Your task to perform on an android device: Show me recent news Image 0: 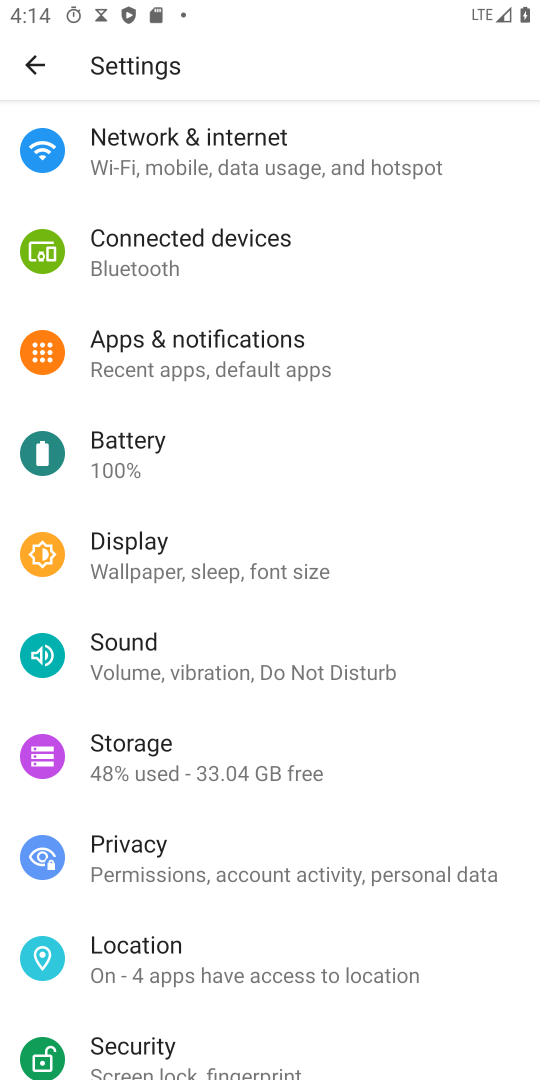
Step 0: press home button
Your task to perform on an android device: Show me recent news Image 1: 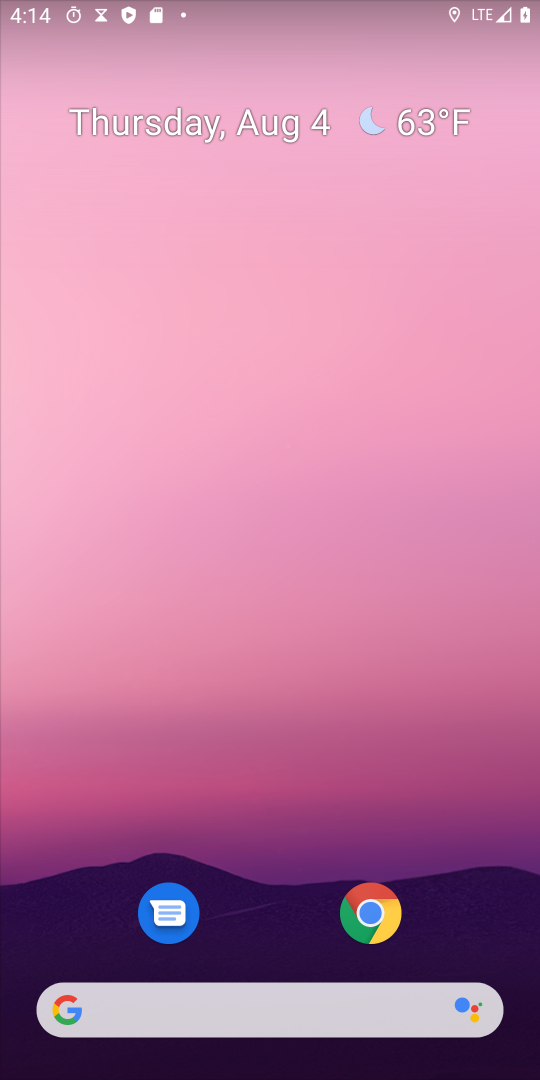
Step 1: drag from (358, 1003) to (515, 226)
Your task to perform on an android device: Show me recent news Image 2: 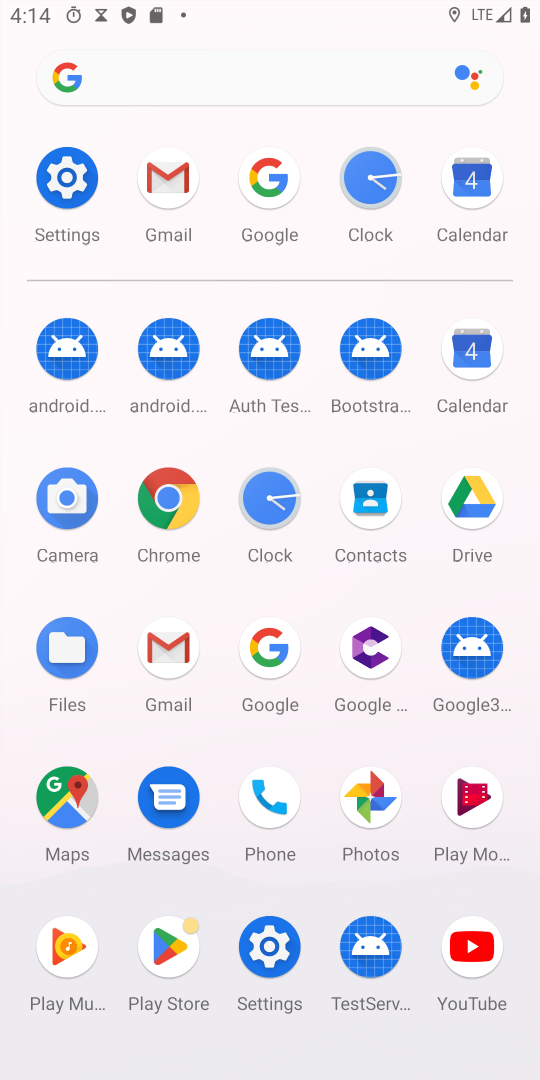
Step 2: click (166, 499)
Your task to perform on an android device: Show me recent news Image 3: 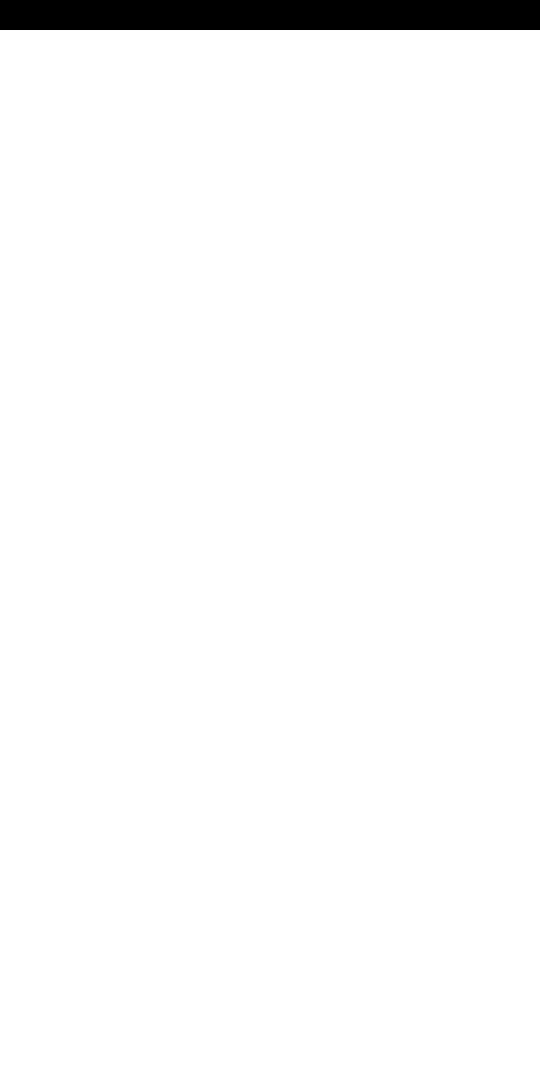
Step 3: click (172, 512)
Your task to perform on an android device: Show me recent news Image 4: 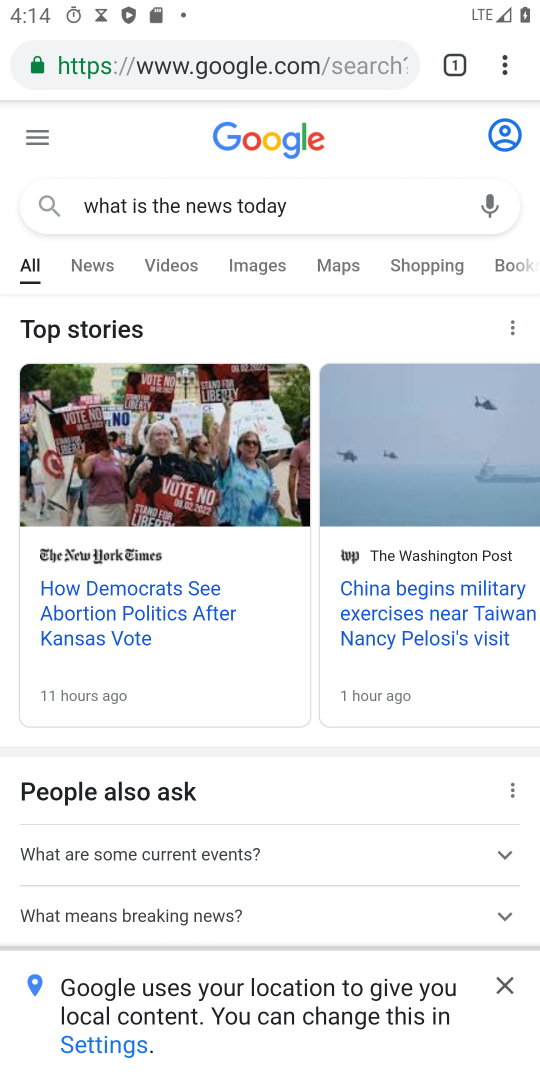
Step 4: click (220, 84)
Your task to perform on an android device: Show me recent news Image 5: 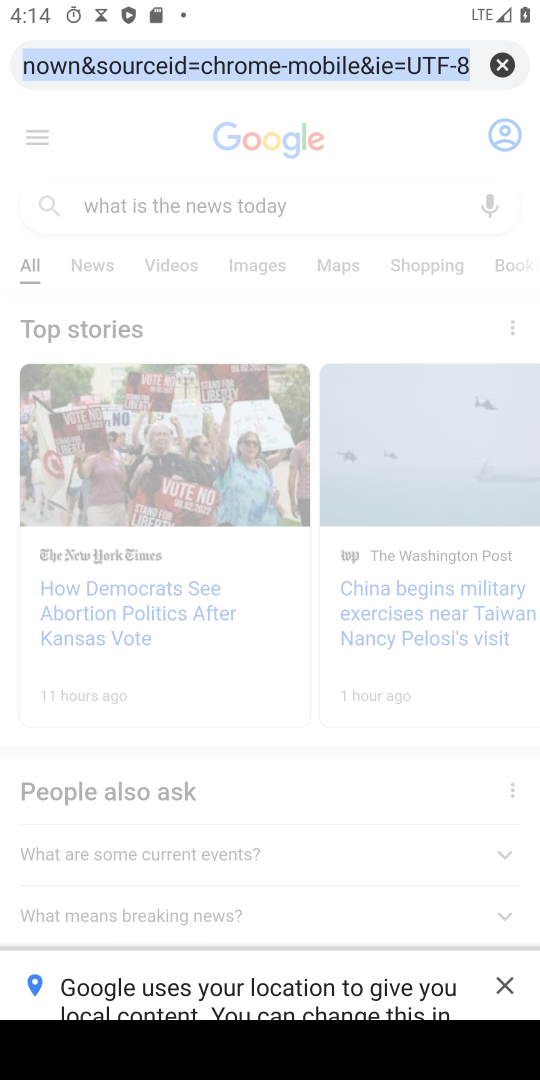
Step 5: click (498, 50)
Your task to perform on an android device: Show me recent news Image 6: 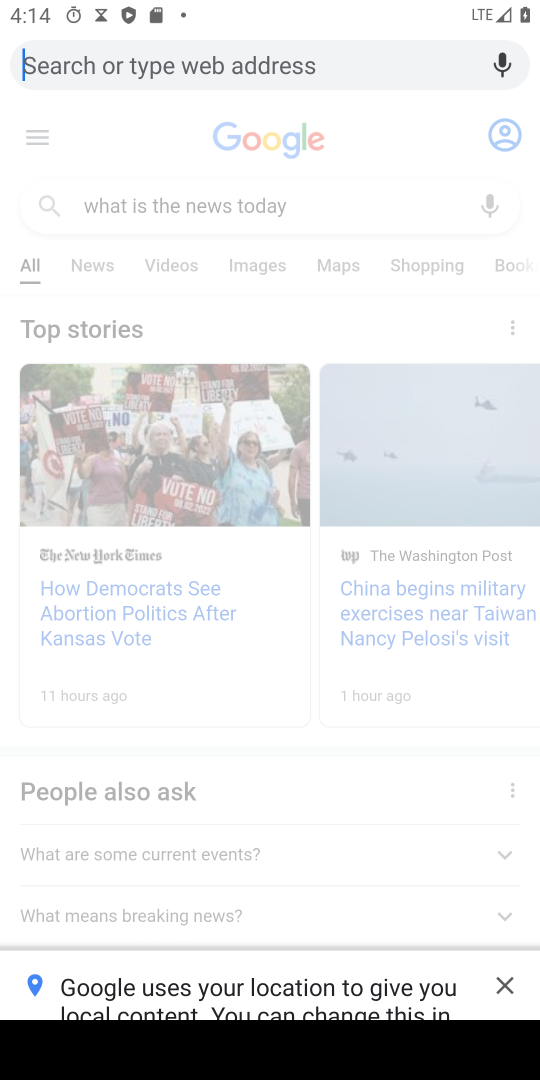
Step 6: type "show me recent news"
Your task to perform on an android device: Show me recent news Image 7: 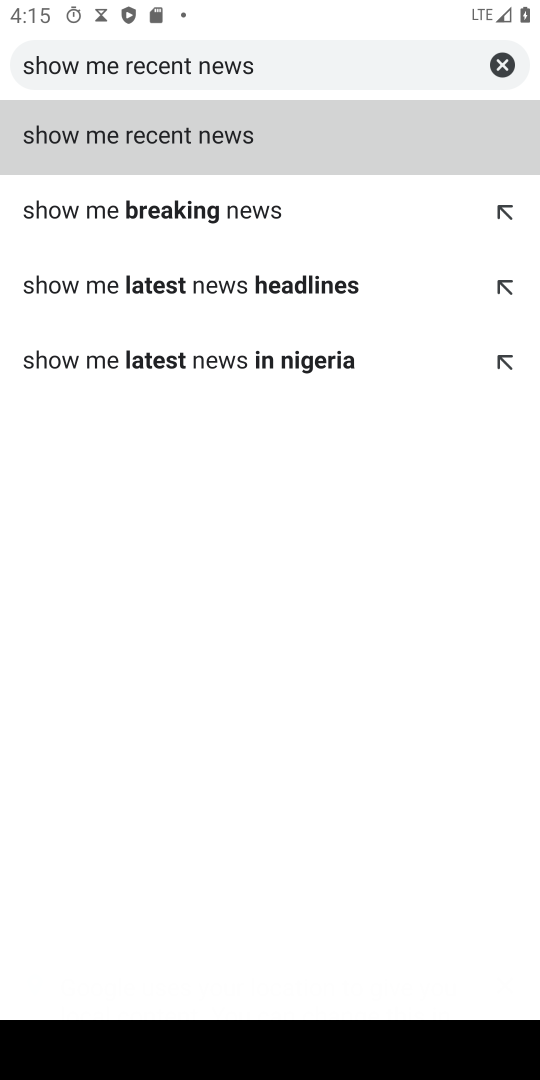
Step 7: click (318, 151)
Your task to perform on an android device: Show me recent news Image 8: 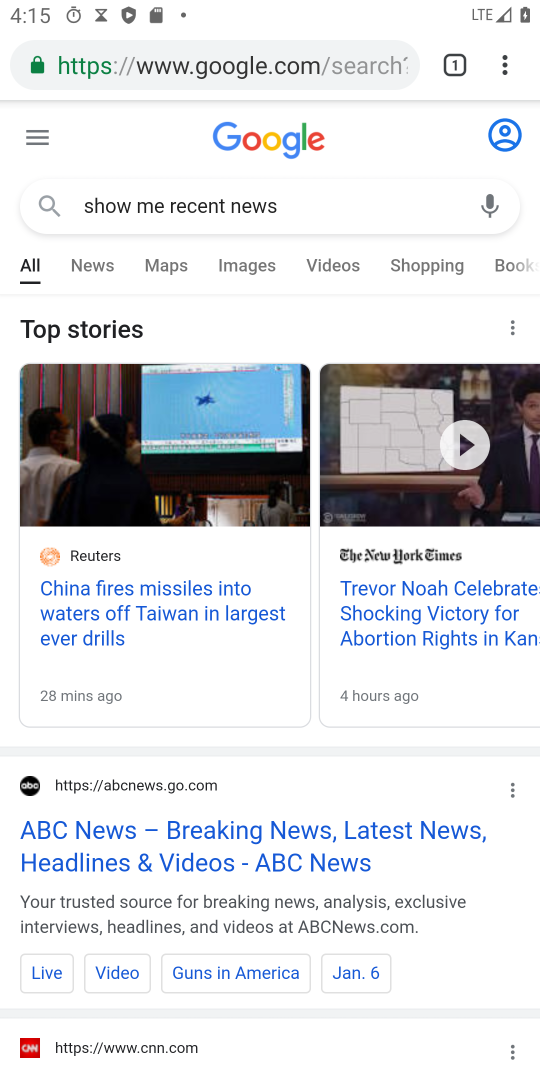
Step 8: task complete